Your task to perform on an android device: Go to network settings Image 0: 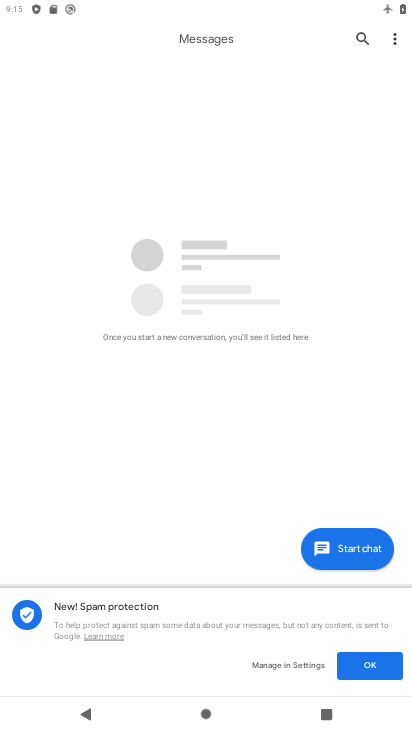
Step 0: press home button
Your task to perform on an android device: Go to network settings Image 1: 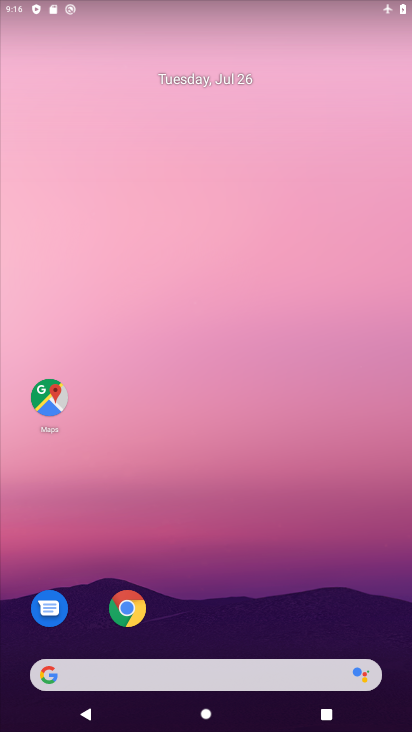
Step 1: drag from (238, 611) to (276, 152)
Your task to perform on an android device: Go to network settings Image 2: 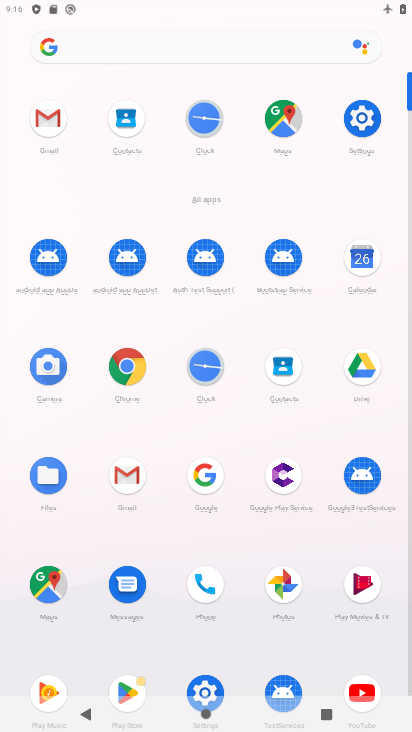
Step 2: click (350, 116)
Your task to perform on an android device: Go to network settings Image 3: 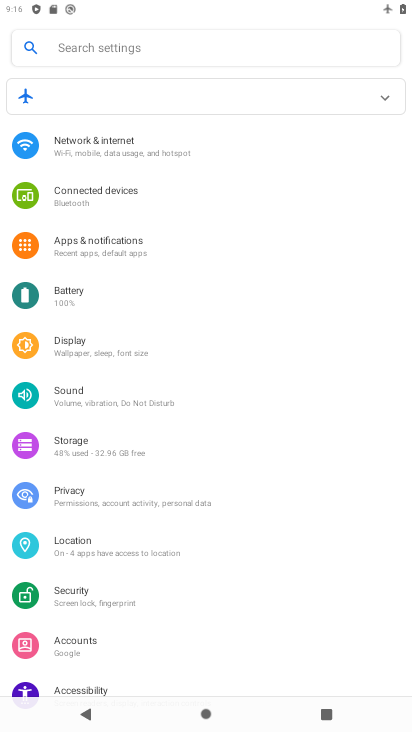
Step 3: click (173, 146)
Your task to perform on an android device: Go to network settings Image 4: 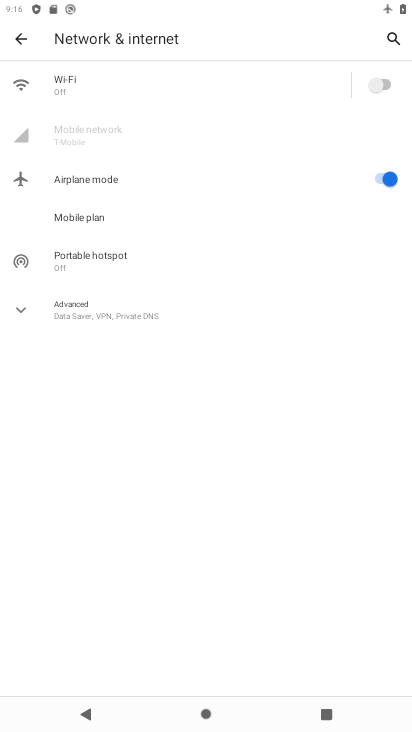
Step 4: task complete